Your task to perform on an android device: manage bookmarks in the chrome app Image 0: 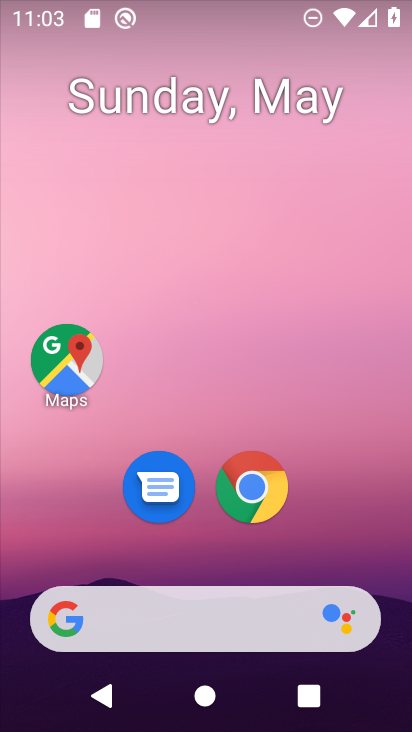
Step 0: click (260, 495)
Your task to perform on an android device: manage bookmarks in the chrome app Image 1: 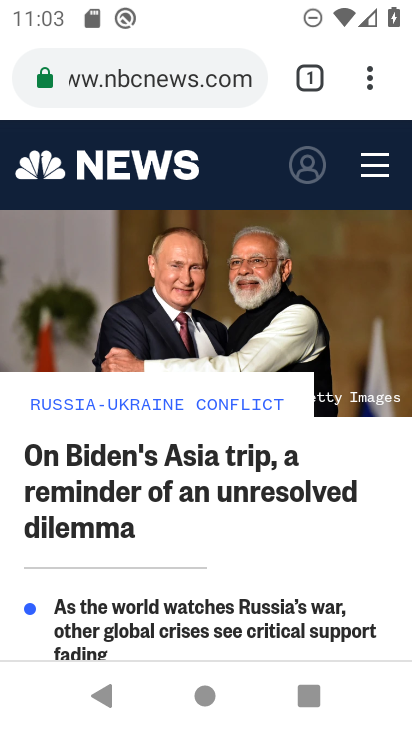
Step 1: click (381, 85)
Your task to perform on an android device: manage bookmarks in the chrome app Image 2: 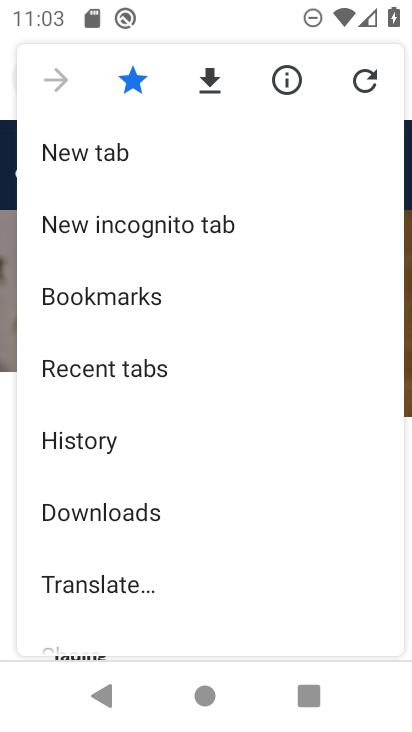
Step 2: click (243, 296)
Your task to perform on an android device: manage bookmarks in the chrome app Image 3: 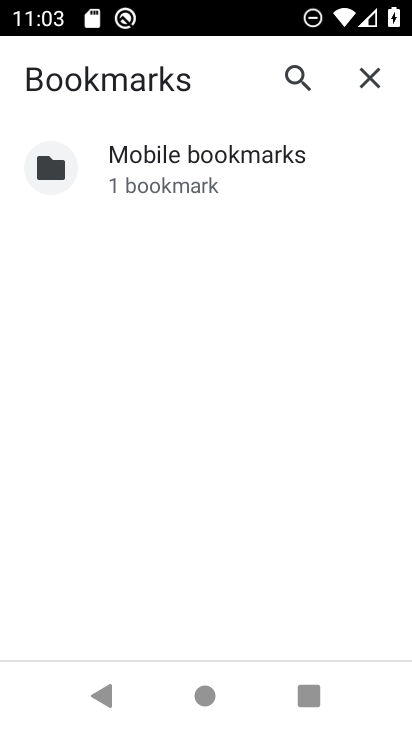
Step 3: click (190, 166)
Your task to perform on an android device: manage bookmarks in the chrome app Image 4: 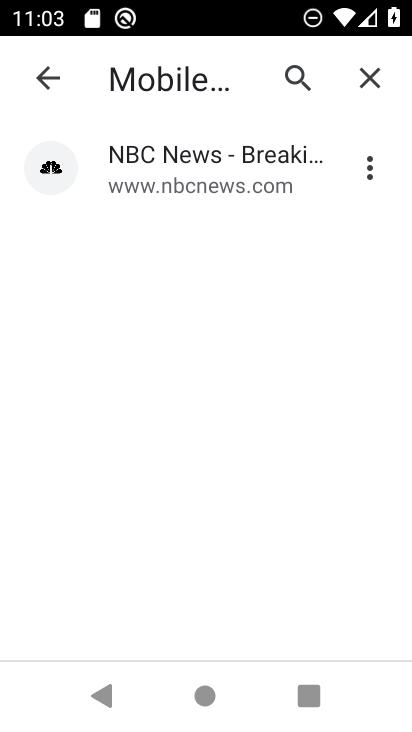
Step 4: click (190, 166)
Your task to perform on an android device: manage bookmarks in the chrome app Image 5: 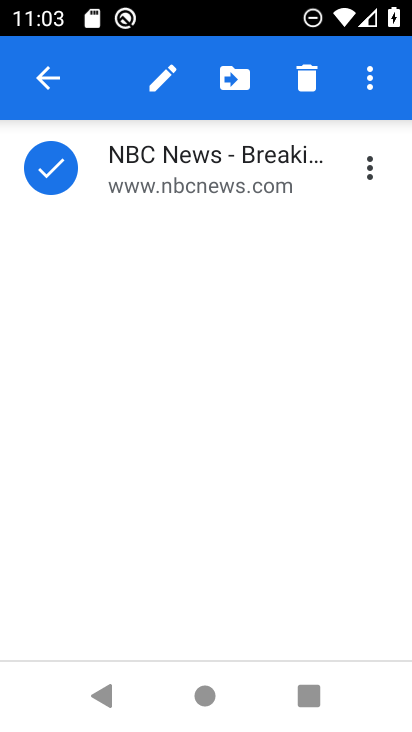
Step 5: click (226, 77)
Your task to perform on an android device: manage bookmarks in the chrome app Image 6: 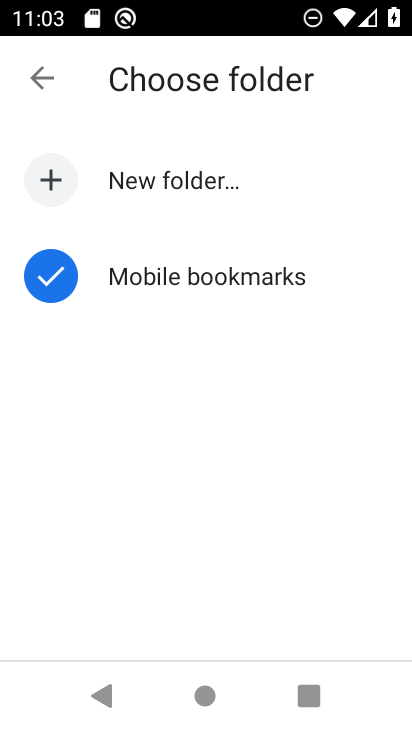
Step 6: click (212, 176)
Your task to perform on an android device: manage bookmarks in the chrome app Image 7: 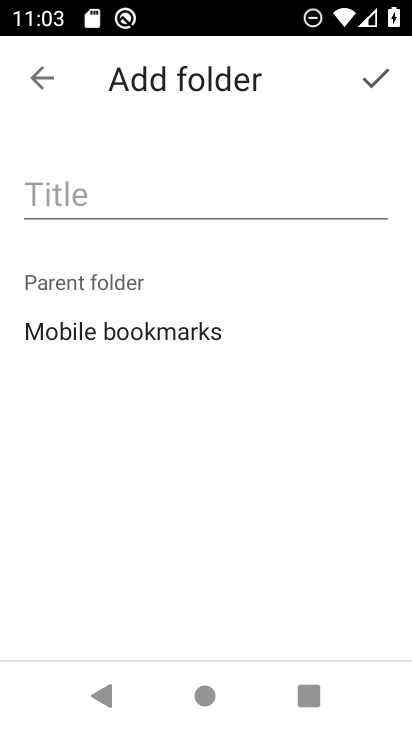
Step 7: click (212, 189)
Your task to perform on an android device: manage bookmarks in the chrome app Image 8: 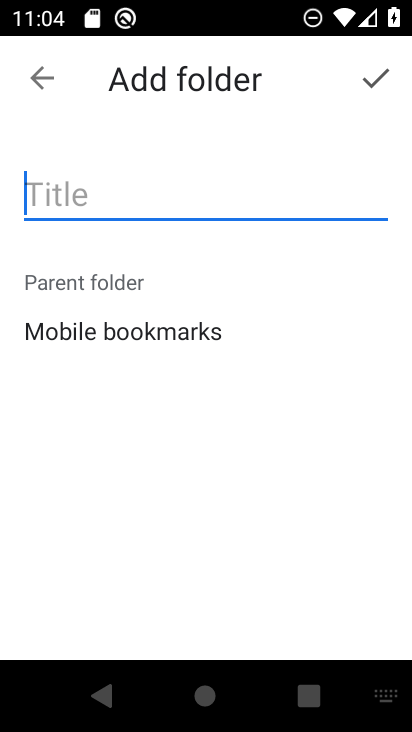
Step 8: type " n kjkjnbjk"
Your task to perform on an android device: manage bookmarks in the chrome app Image 9: 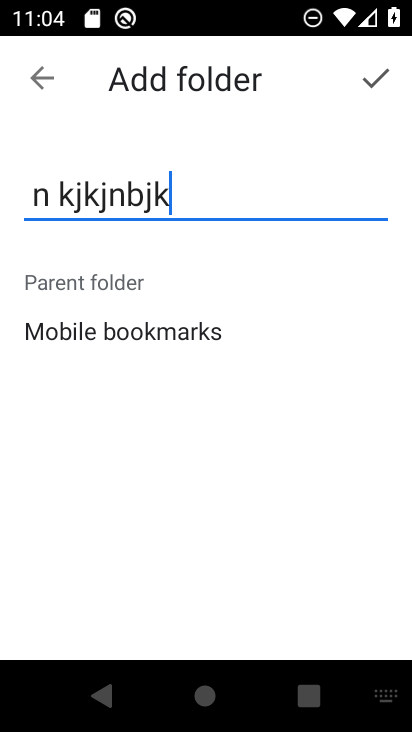
Step 9: click (386, 79)
Your task to perform on an android device: manage bookmarks in the chrome app Image 10: 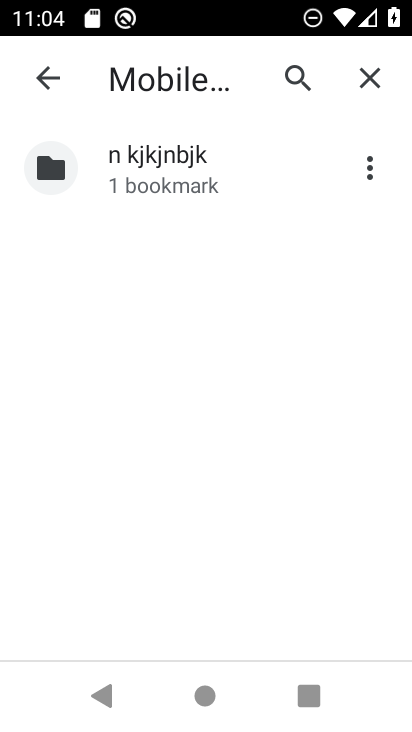
Step 10: task complete